Your task to perform on an android device: Set the phone to "Do not disturb". Image 0: 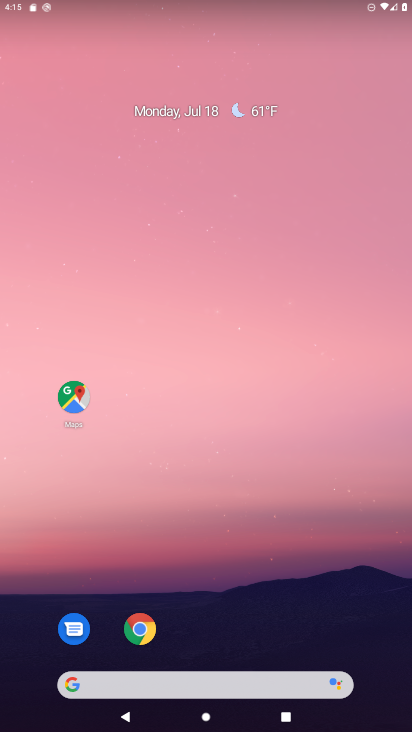
Step 0: drag from (198, 670) to (198, 346)
Your task to perform on an android device: Set the phone to "Do not disturb". Image 1: 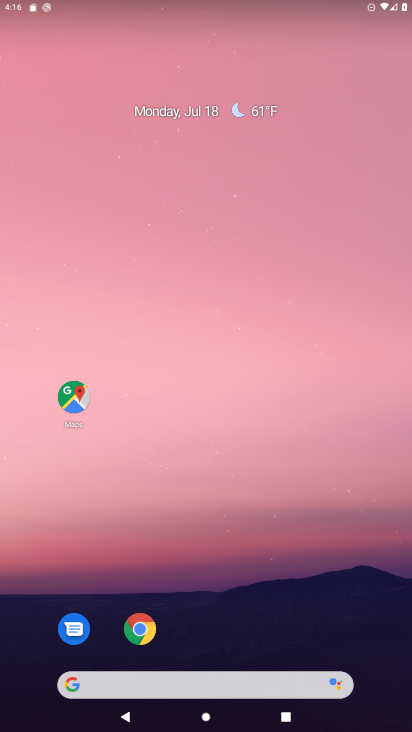
Step 1: drag from (250, 667) to (258, 168)
Your task to perform on an android device: Set the phone to "Do not disturb". Image 2: 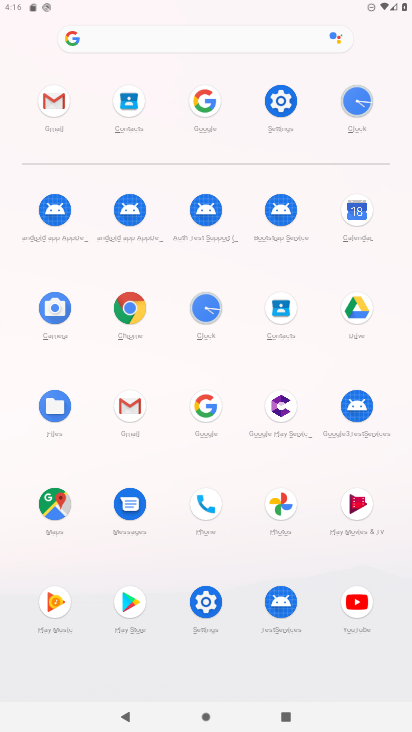
Step 2: click (282, 100)
Your task to perform on an android device: Set the phone to "Do not disturb". Image 3: 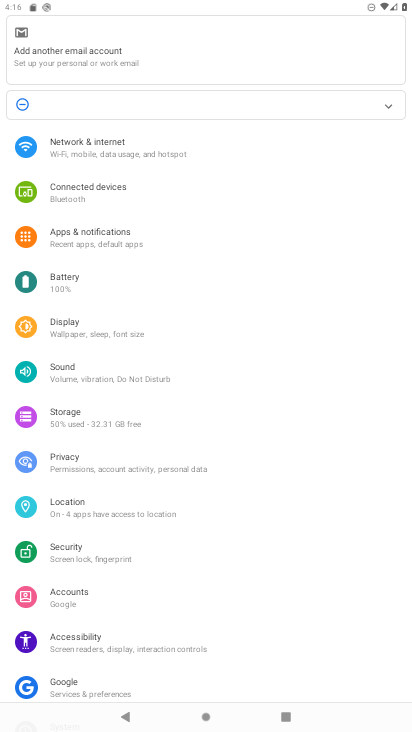
Step 3: click (107, 368)
Your task to perform on an android device: Set the phone to "Do not disturb". Image 4: 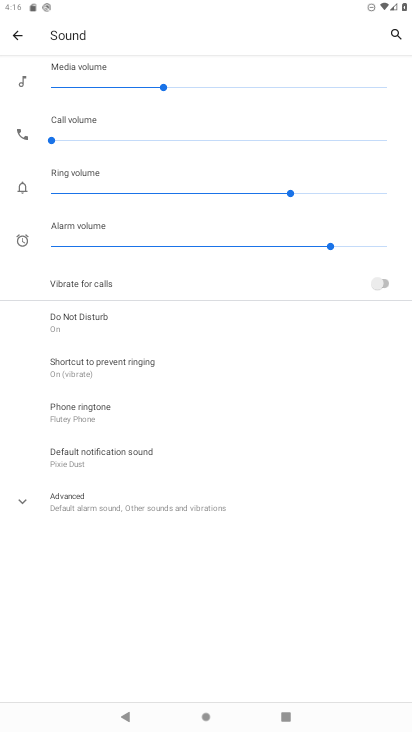
Step 4: click (76, 315)
Your task to perform on an android device: Set the phone to "Do not disturb". Image 5: 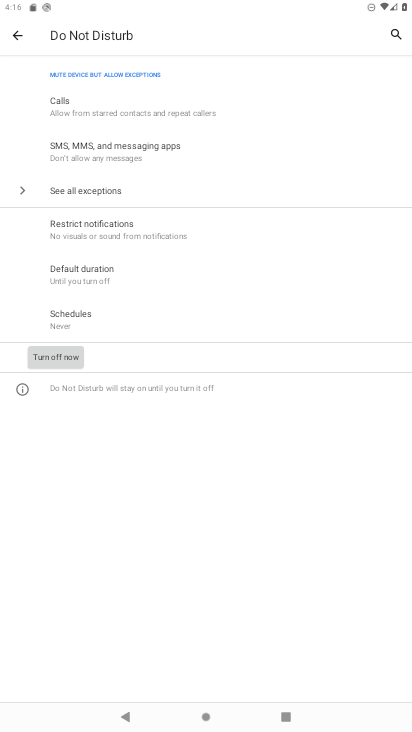
Step 5: task complete